Your task to perform on an android device: all mails in gmail Image 0: 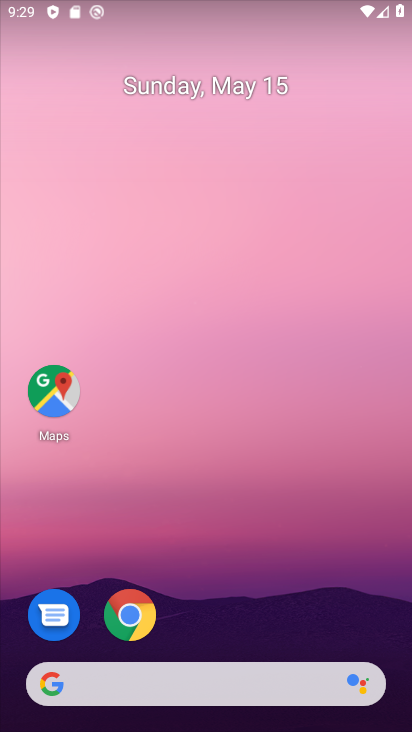
Step 0: drag from (210, 660) to (280, 195)
Your task to perform on an android device: all mails in gmail Image 1: 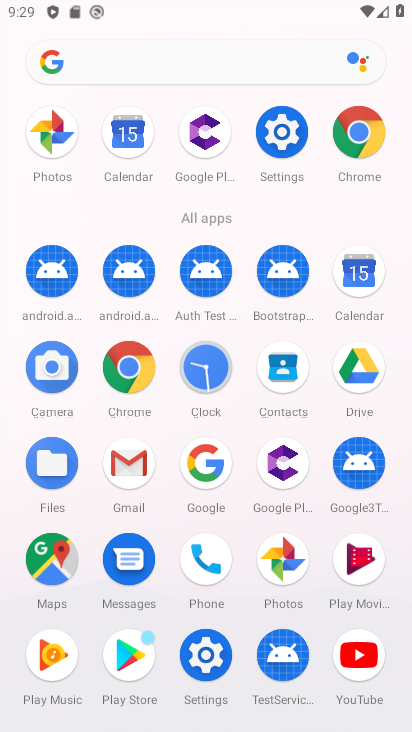
Step 1: click (125, 461)
Your task to perform on an android device: all mails in gmail Image 2: 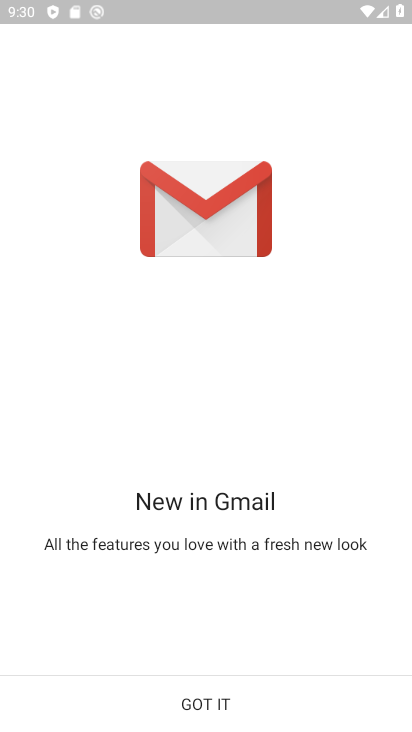
Step 2: click (274, 699)
Your task to perform on an android device: all mails in gmail Image 3: 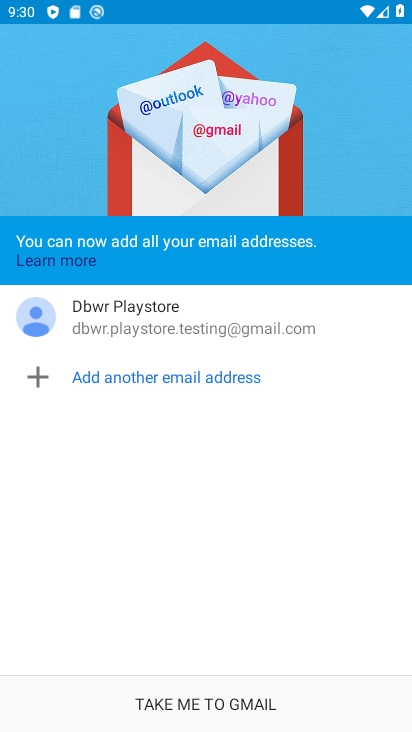
Step 3: click (241, 700)
Your task to perform on an android device: all mails in gmail Image 4: 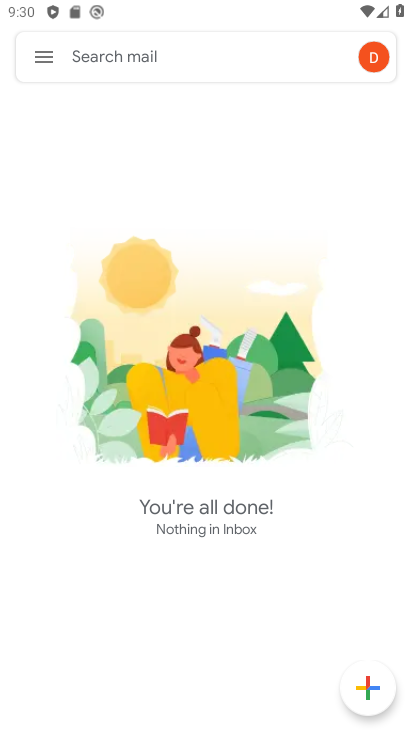
Step 4: click (55, 59)
Your task to perform on an android device: all mails in gmail Image 5: 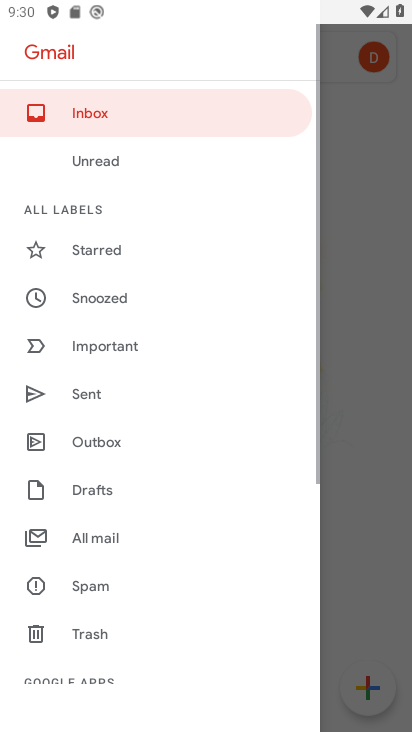
Step 5: drag from (123, 647) to (191, 439)
Your task to perform on an android device: all mails in gmail Image 6: 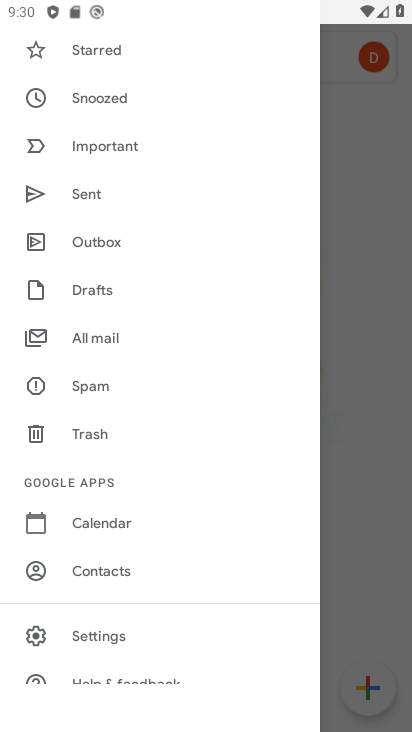
Step 6: click (123, 345)
Your task to perform on an android device: all mails in gmail Image 7: 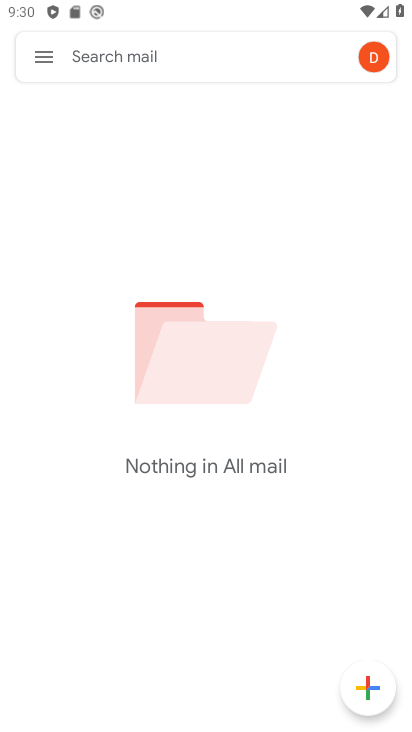
Step 7: task complete